Your task to perform on an android device: open a new tab in the chrome app Image 0: 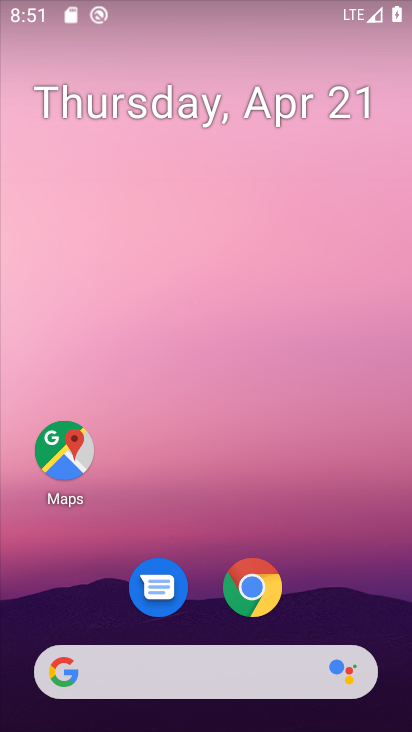
Step 0: click (252, 584)
Your task to perform on an android device: open a new tab in the chrome app Image 1: 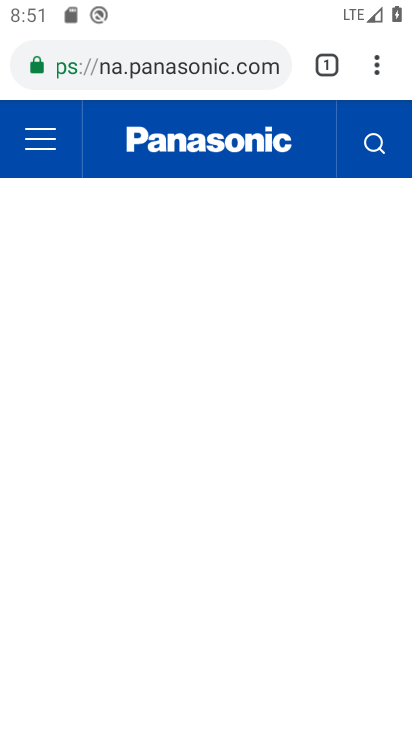
Step 1: click (379, 61)
Your task to perform on an android device: open a new tab in the chrome app Image 2: 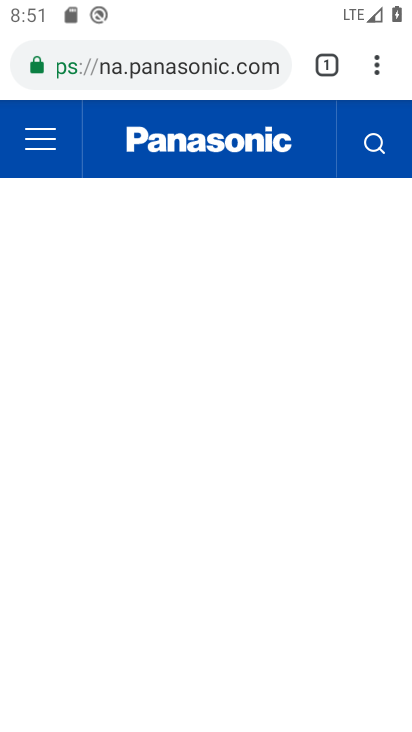
Step 2: click (377, 60)
Your task to perform on an android device: open a new tab in the chrome app Image 3: 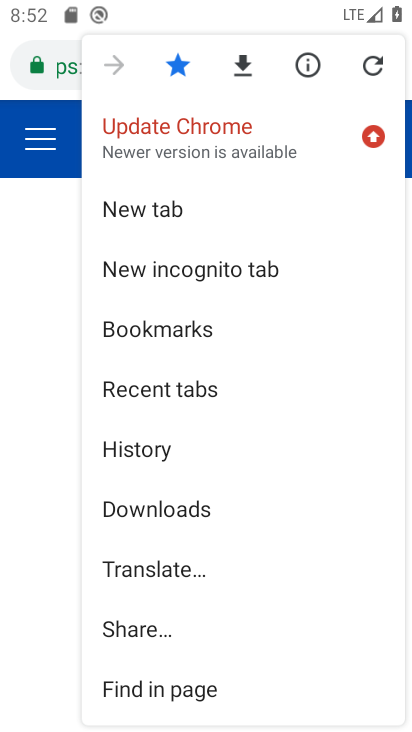
Step 3: click (153, 209)
Your task to perform on an android device: open a new tab in the chrome app Image 4: 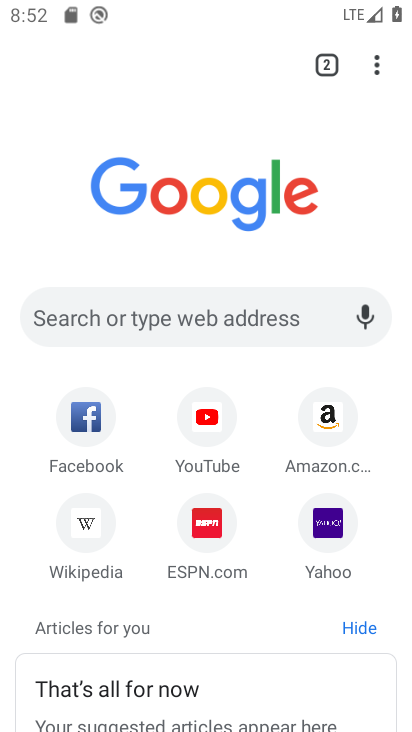
Step 4: task complete